Your task to perform on an android device: turn on data saver in the chrome app Image 0: 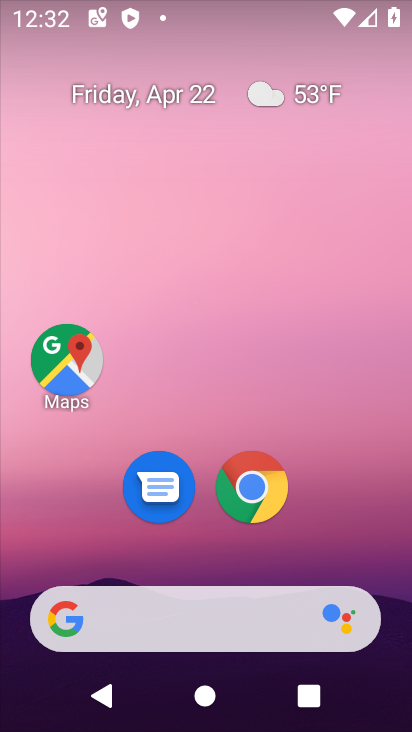
Step 0: click (256, 498)
Your task to perform on an android device: turn on data saver in the chrome app Image 1: 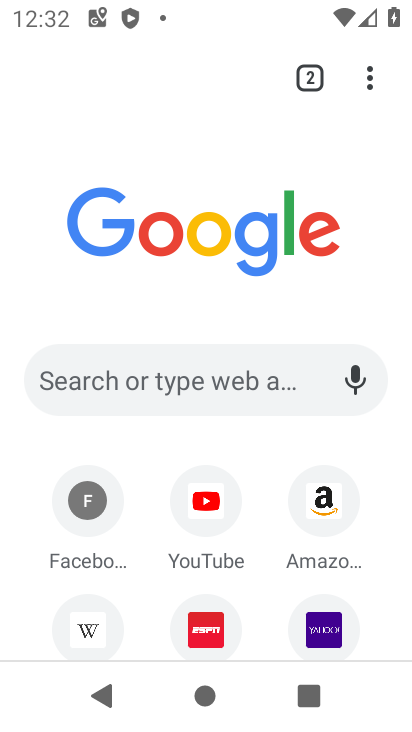
Step 1: drag from (368, 76) to (239, 543)
Your task to perform on an android device: turn on data saver in the chrome app Image 2: 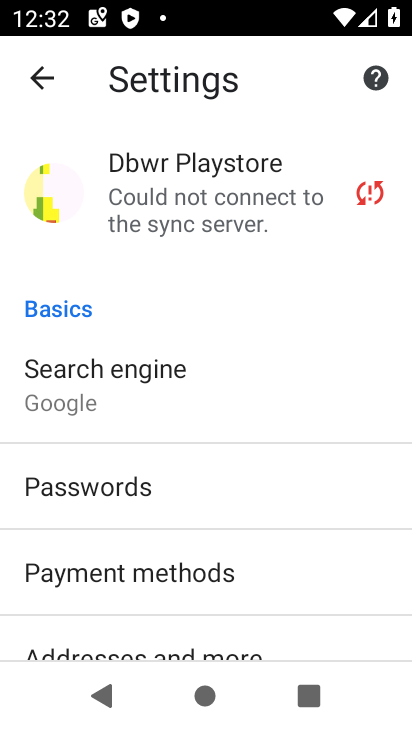
Step 2: drag from (283, 591) to (272, 149)
Your task to perform on an android device: turn on data saver in the chrome app Image 3: 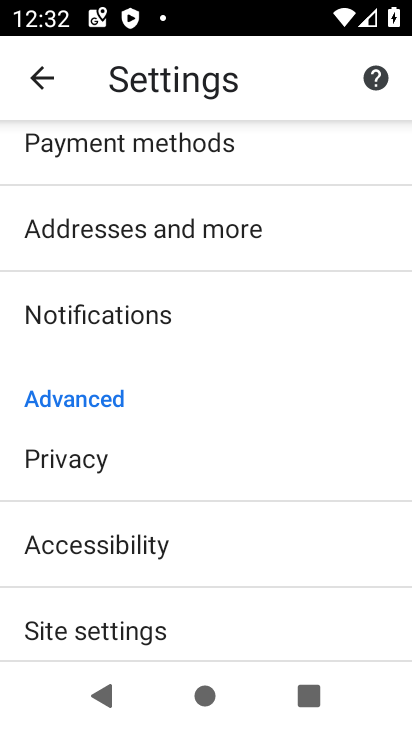
Step 3: drag from (275, 566) to (280, 210)
Your task to perform on an android device: turn on data saver in the chrome app Image 4: 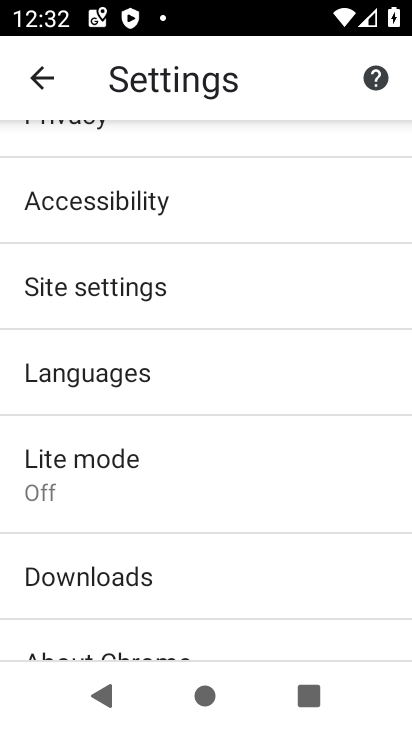
Step 4: click (229, 475)
Your task to perform on an android device: turn on data saver in the chrome app Image 5: 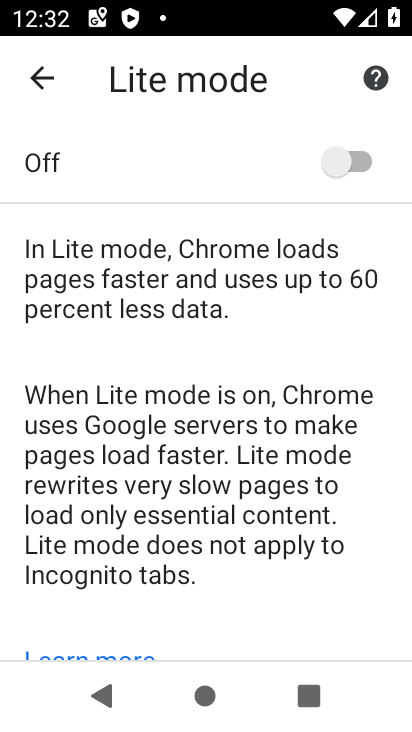
Step 5: click (353, 165)
Your task to perform on an android device: turn on data saver in the chrome app Image 6: 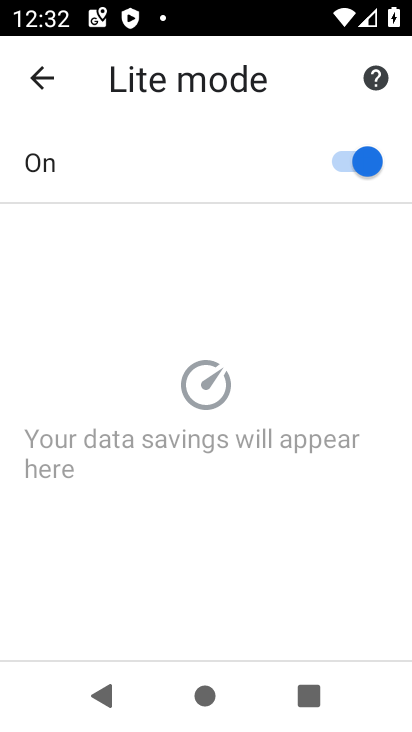
Step 6: task complete